Your task to perform on an android device: Is it going to rain this weekend? Image 0: 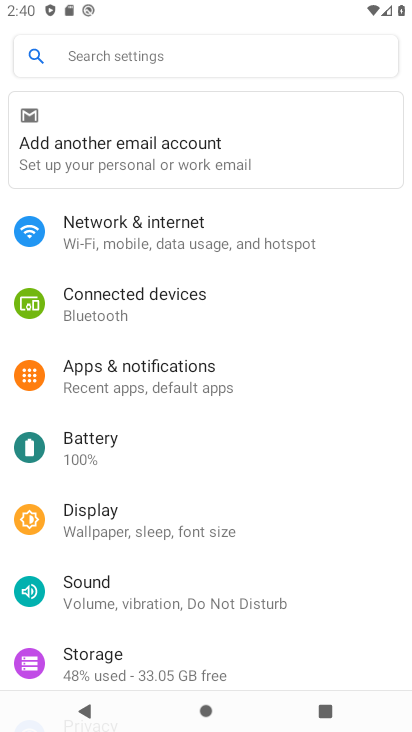
Step 0: press home button
Your task to perform on an android device: Is it going to rain this weekend? Image 1: 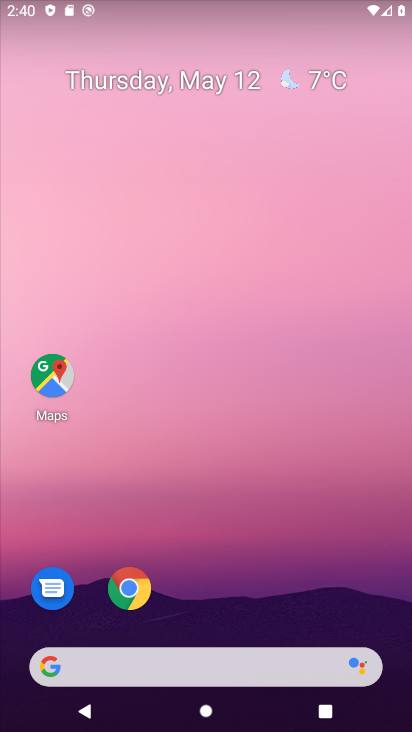
Step 1: drag from (231, 486) to (265, 143)
Your task to perform on an android device: Is it going to rain this weekend? Image 2: 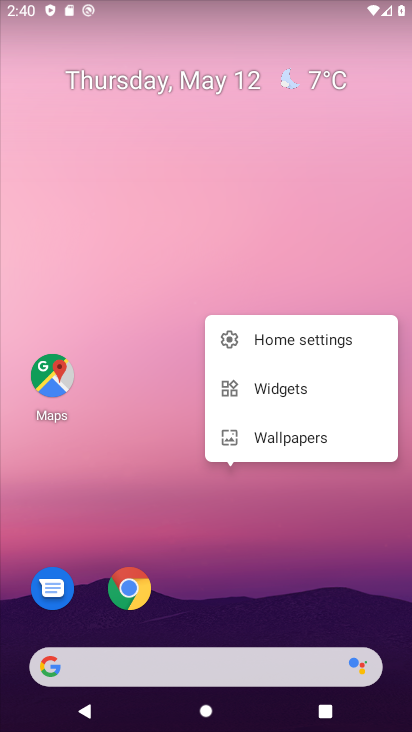
Step 2: drag from (210, 586) to (214, 41)
Your task to perform on an android device: Is it going to rain this weekend? Image 3: 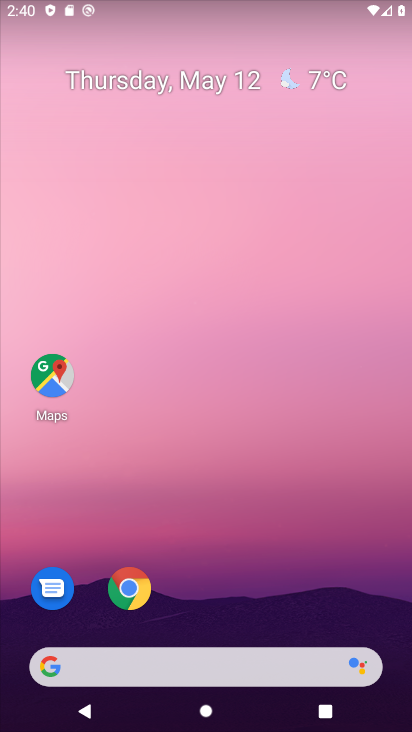
Step 3: drag from (232, 603) to (217, 97)
Your task to perform on an android device: Is it going to rain this weekend? Image 4: 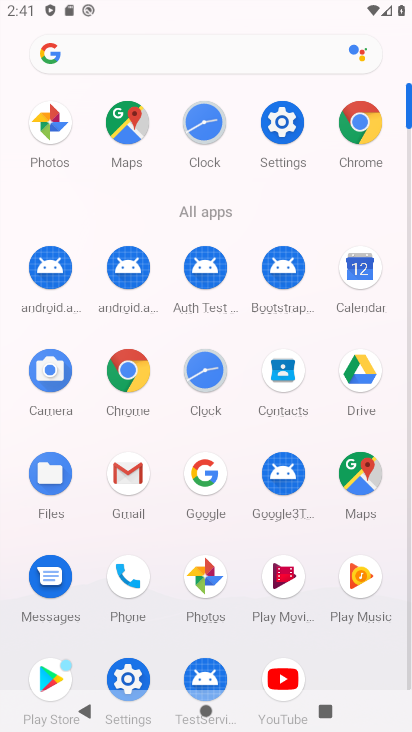
Step 4: click (213, 516)
Your task to perform on an android device: Is it going to rain this weekend? Image 5: 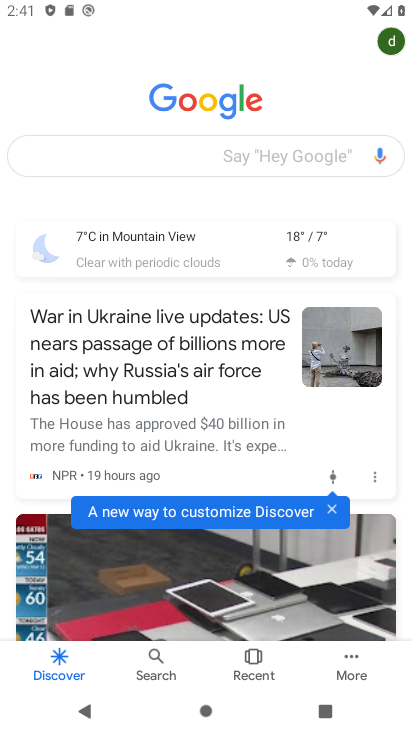
Step 5: click (197, 162)
Your task to perform on an android device: Is it going to rain this weekend? Image 6: 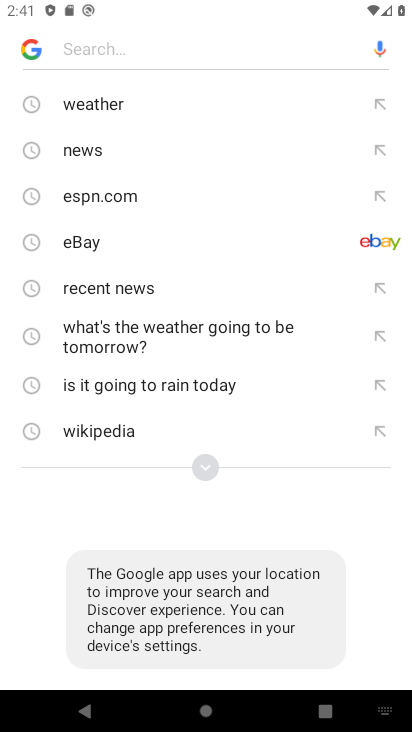
Step 6: click (114, 108)
Your task to perform on an android device: Is it going to rain this weekend? Image 7: 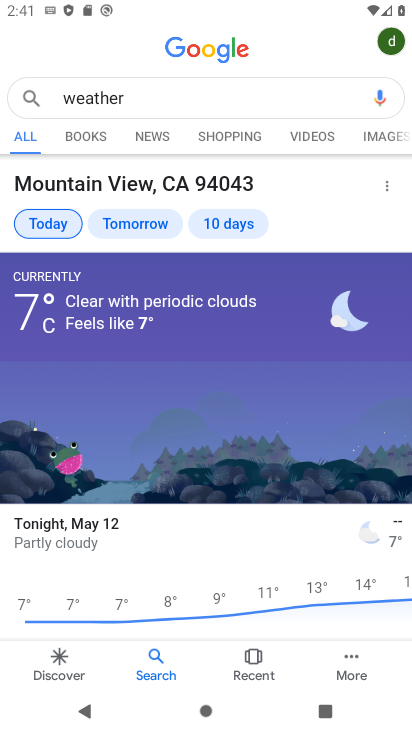
Step 7: click (222, 234)
Your task to perform on an android device: Is it going to rain this weekend? Image 8: 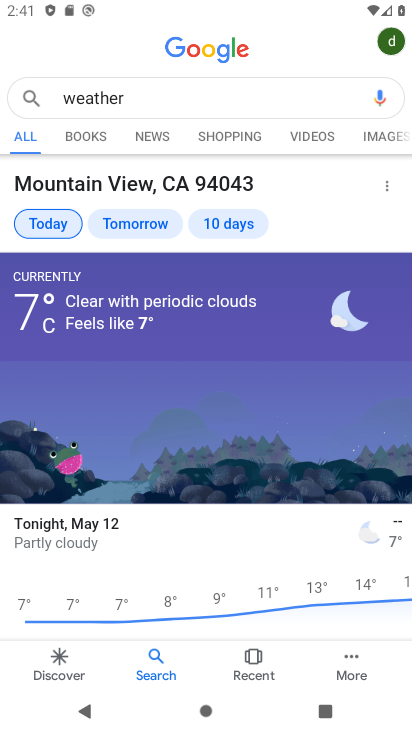
Step 8: click (226, 230)
Your task to perform on an android device: Is it going to rain this weekend? Image 9: 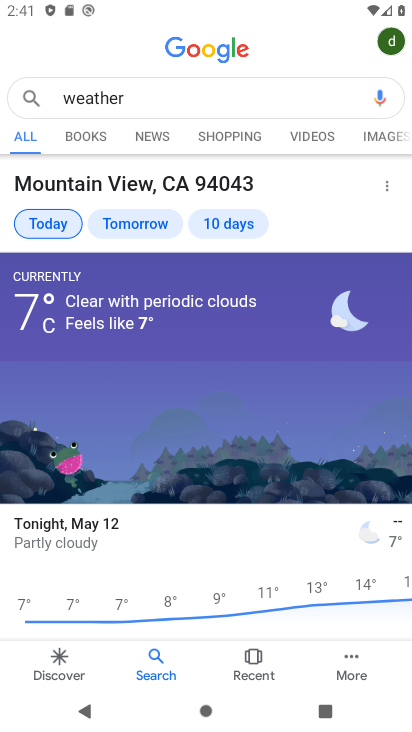
Step 9: click (159, 229)
Your task to perform on an android device: Is it going to rain this weekend? Image 10: 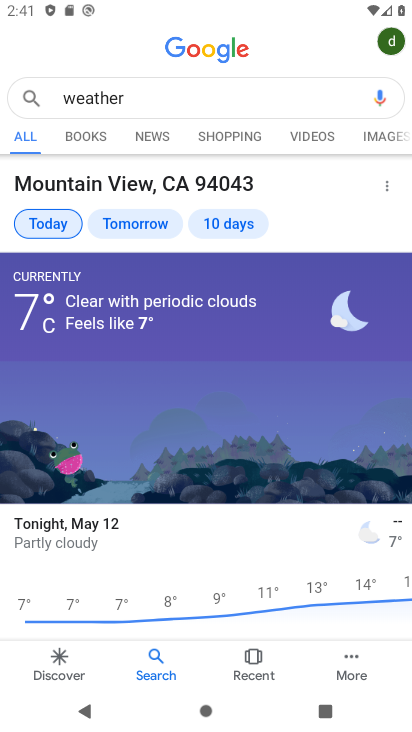
Step 10: click (148, 227)
Your task to perform on an android device: Is it going to rain this weekend? Image 11: 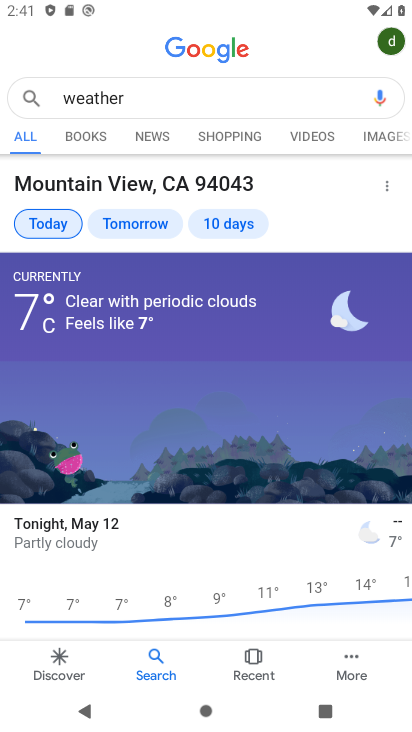
Step 11: click (226, 230)
Your task to perform on an android device: Is it going to rain this weekend? Image 12: 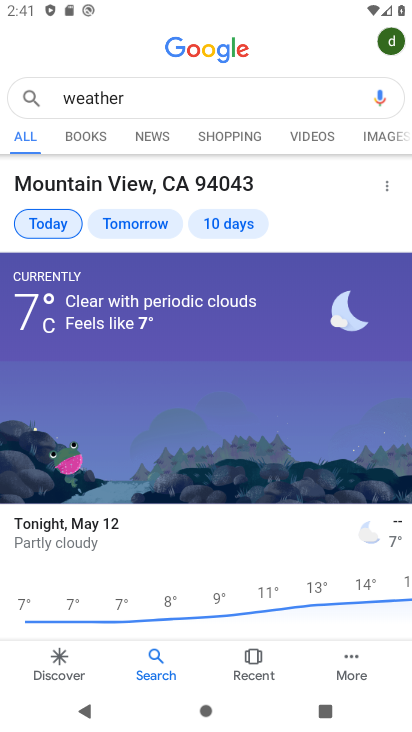
Step 12: click (231, 223)
Your task to perform on an android device: Is it going to rain this weekend? Image 13: 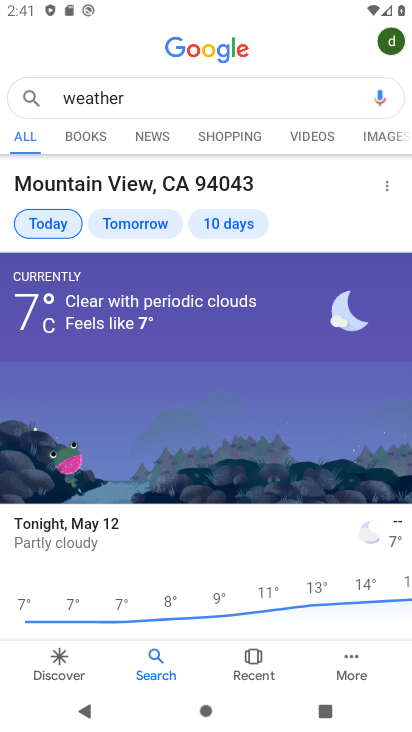
Step 13: click (231, 223)
Your task to perform on an android device: Is it going to rain this weekend? Image 14: 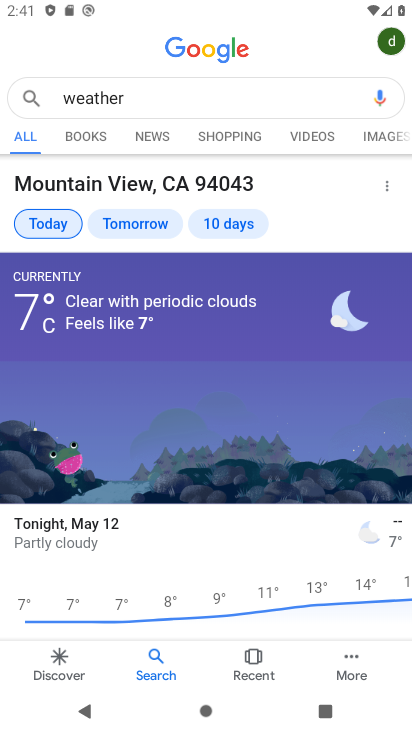
Step 14: click (129, 218)
Your task to perform on an android device: Is it going to rain this weekend? Image 15: 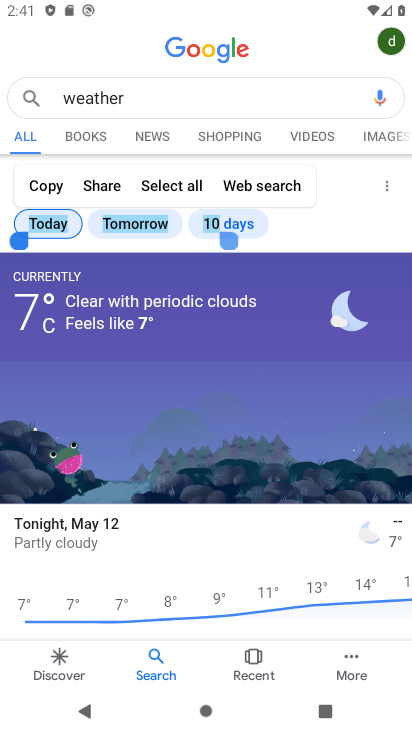
Step 15: click (234, 238)
Your task to perform on an android device: Is it going to rain this weekend? Image 16: 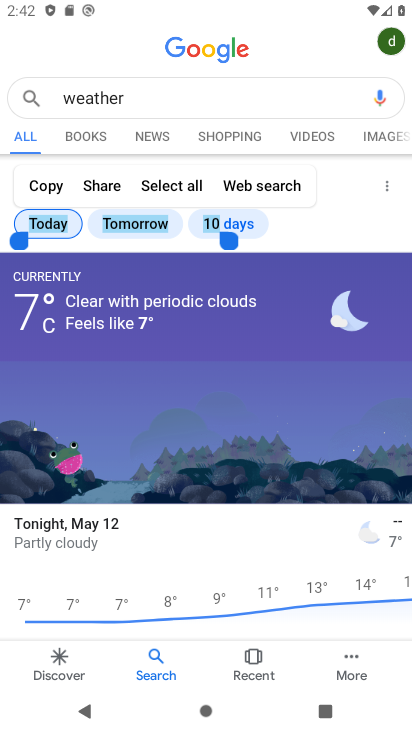
Step 16: task complete